Your task to perform on an android device: set an alarm Image 0: 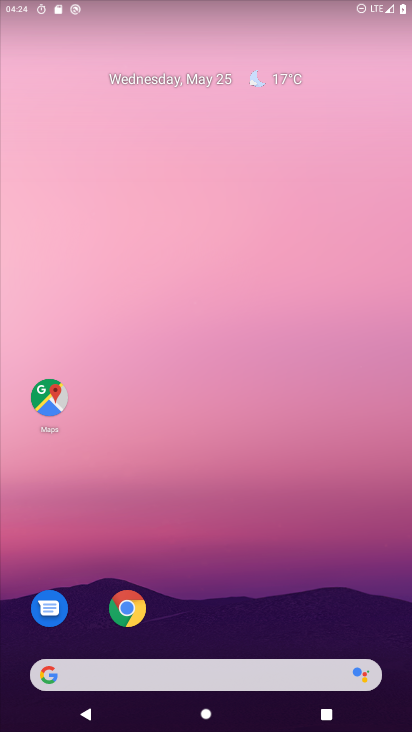
Step 0: drag from (289, 560) to (296, 119)
Your task to perform on an android device: set an alarm Image 1: 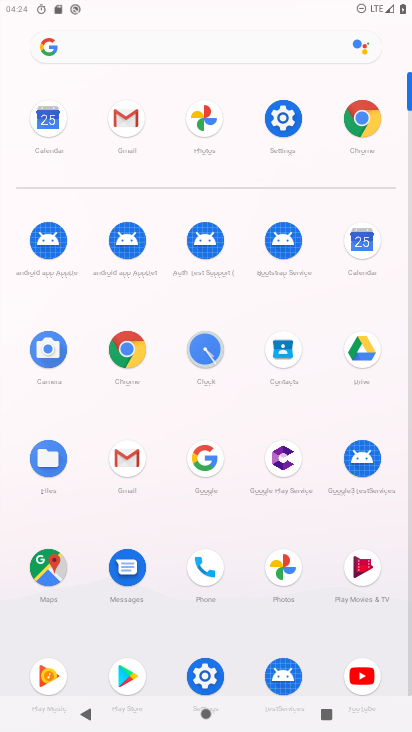
Step 1: click (212, 357)
Your task to perform on an android device: set an alarm Image 2: 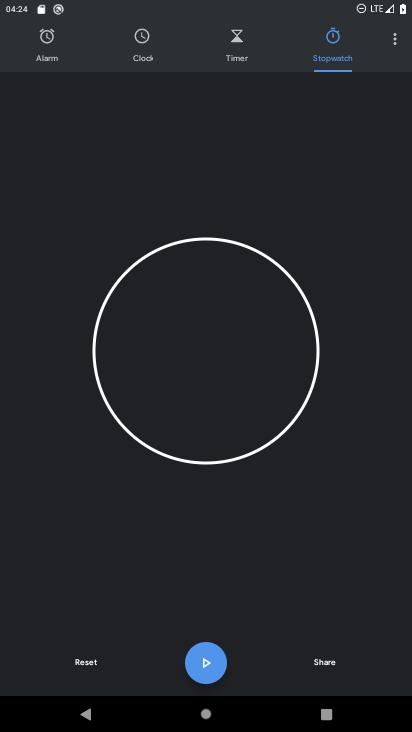
Step 2: click (60, 53)
Your task to perform on an android device: set an alarm Image 3: 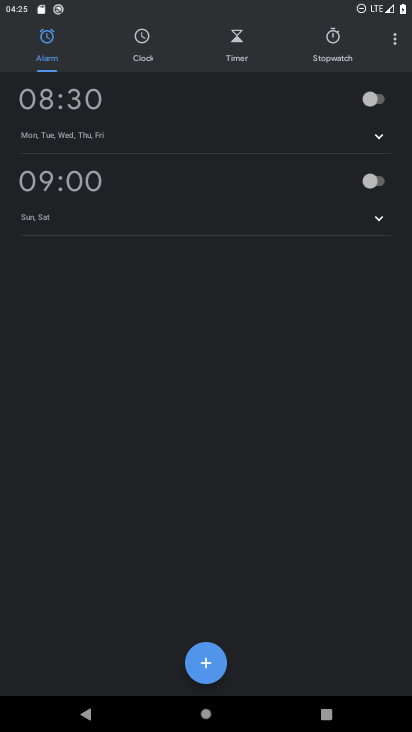
Step 3: click (201, 665)
Your task to perform on an android device: set an alarm Image 4: 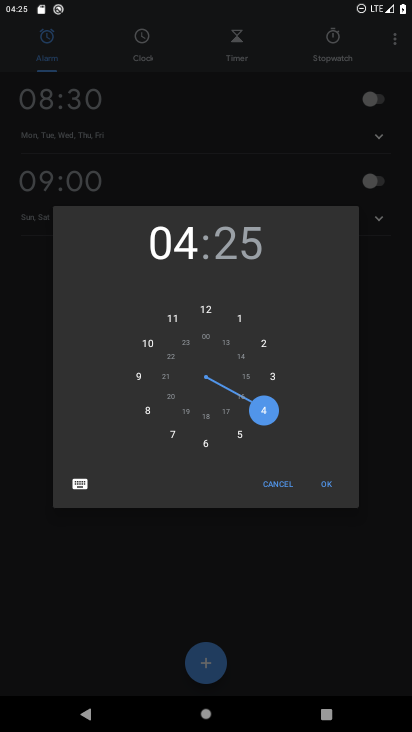
Step 4: click (336, 484)
Your task to perform on an android device: set an alarm Image 5: 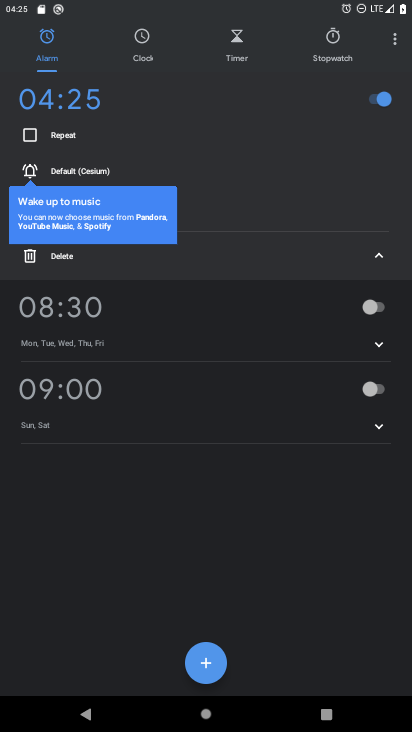
Step 5: task complete